Your task to perform on an android device: Open display settings Image 0: 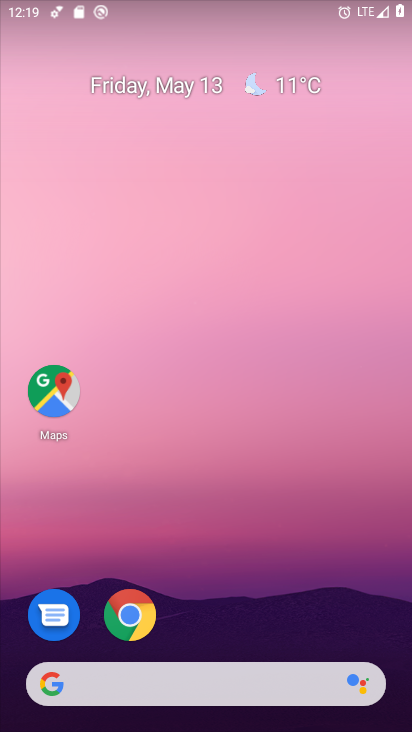
Step 0: drag from (254, 633) to (268, 0)
Your task to perform on an android device: Open display settings Image 1: 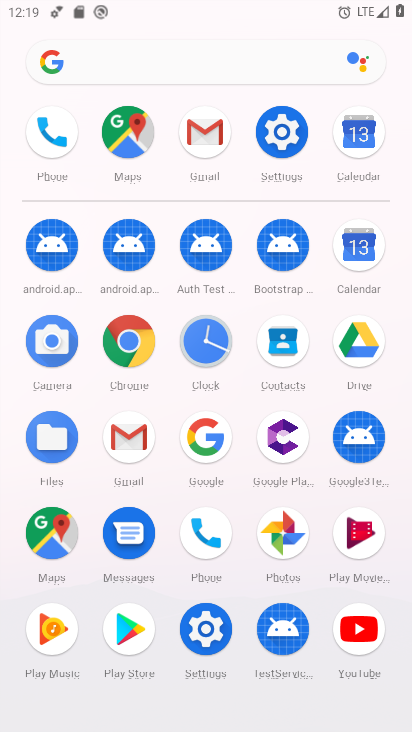
Step 1: click (277, 139)
Your task to perform on an android device: Open display settings Image 2: 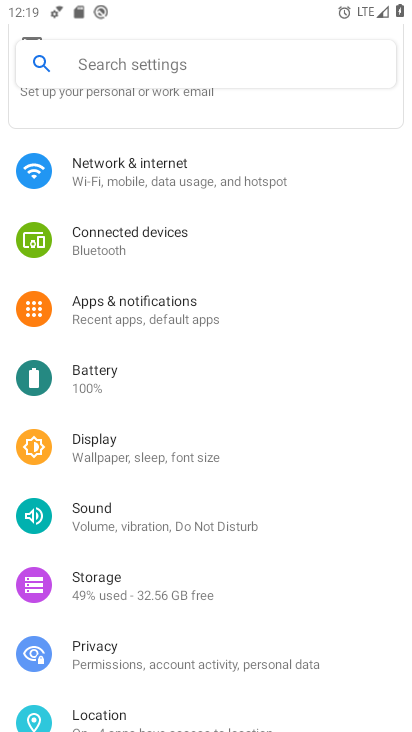
Step 2: click (225, 452)
Your task to perform on an android device: Open display settings Image 3: 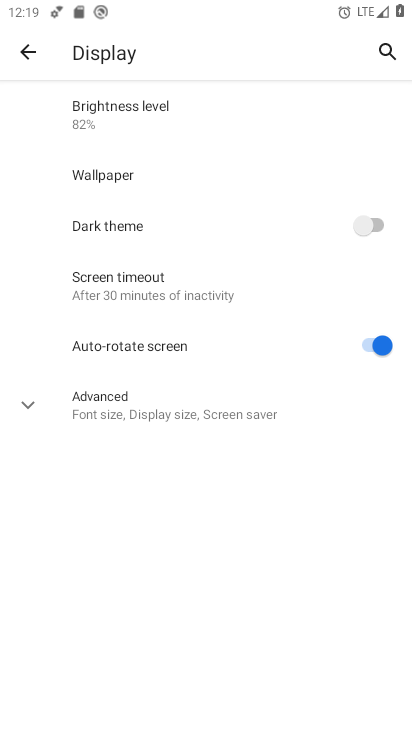
Step 3: task complete